Your task to perform on an android device: Search for vegetarian restaurants on Maps Image 0: 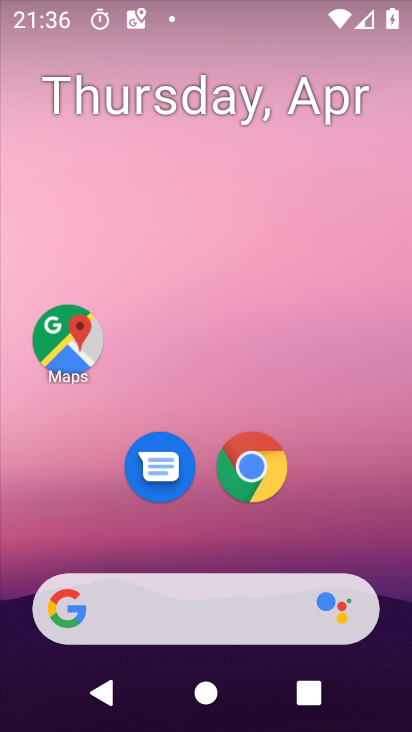
Step 0: drag from (213, 535) to (268, 51)
Your task to perform on an android device: Search for vegetarian restaurants on Maps Image 1: 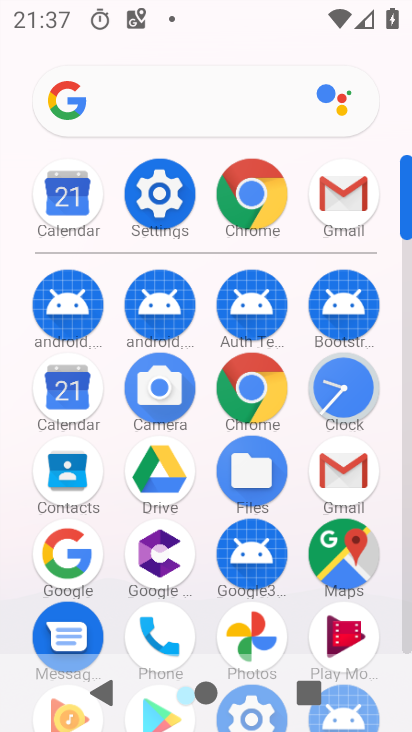
Step 1: click (339, 565)
Your task to perform on an android device: Search for vegetarian restaurants on Maps Image 2: 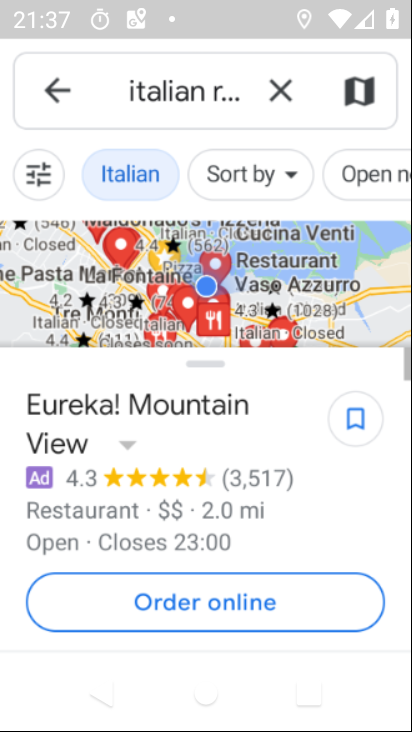
Step 2: click (34, 88)
Your task to perform on an android device: Search for vegetarian restaurants on Maps Image 3: 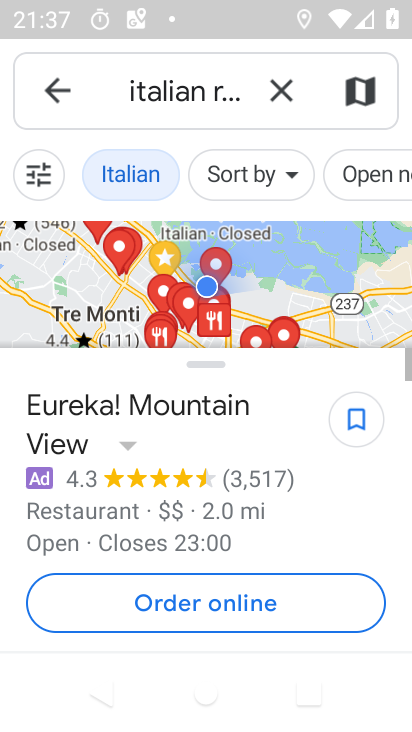
Step 3: click (49, 88)
Your task to perform on an android device: Search for vegetarian restaurants on Maps Image 4: 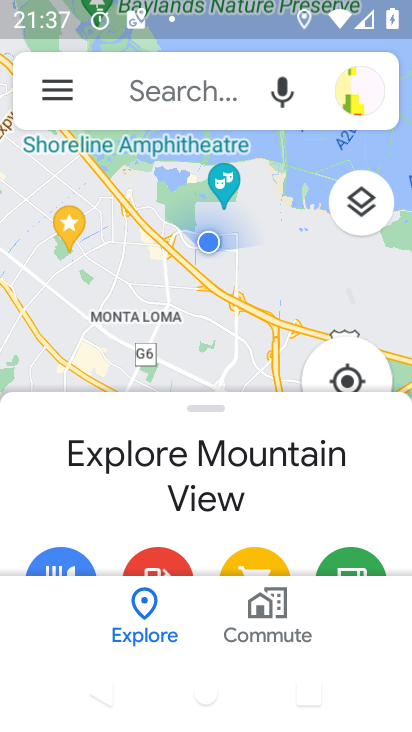
Step 4: click (201, 98)
Your task to perform on an android device: Search for vegetarian restaurants on Maps Image 5: 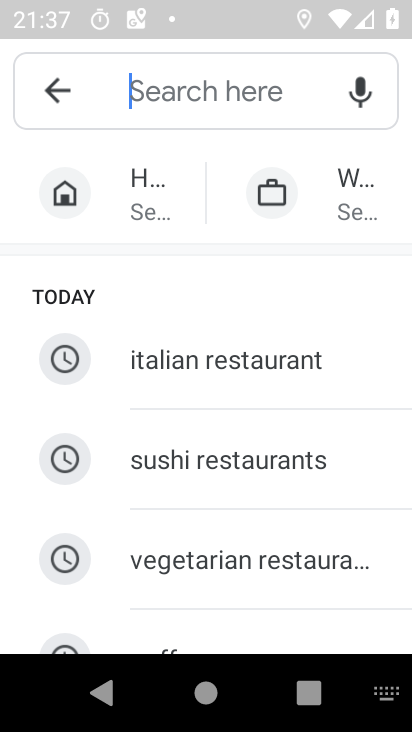
Step 5: click (201, 545)
Your task to perform on an android device: Search for vegetarian restaurants on Maps Image 6: 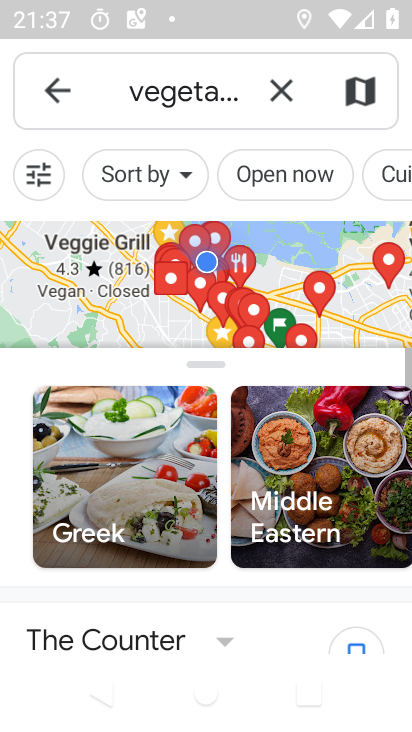
Step 6: task complete